Your task to perform on an android device: Go to Reddit.com Image 0: 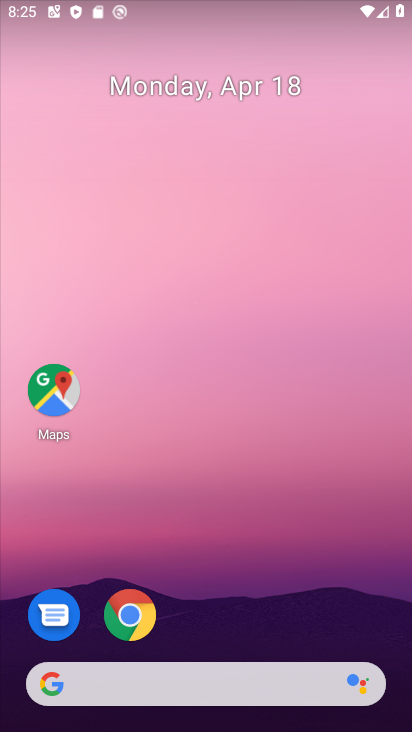
Step 0: click (140, 611)
Your task to perform on an android device: Go to Reddit.com Image 1: 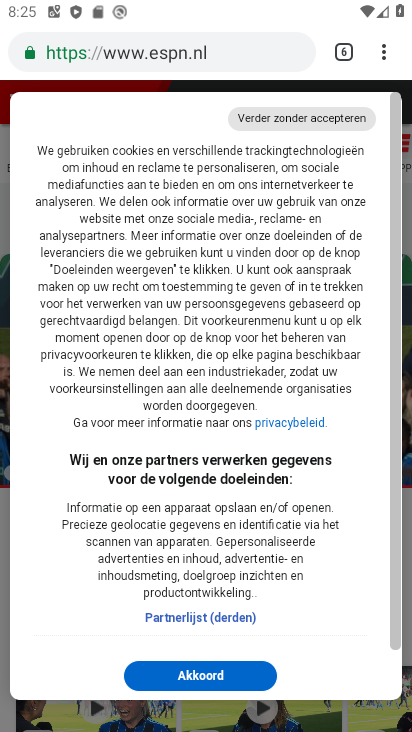
Step 1: click (381, 45)
Your task to perform on an android device: Go to Reddit.com Image 2: 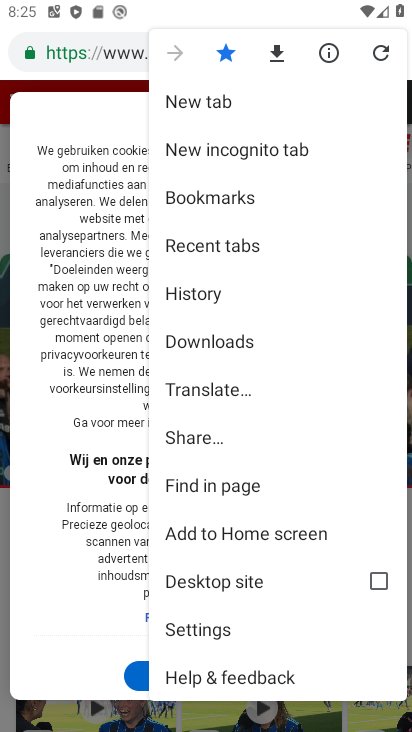
Step 2: click (307, 99)
Your task to perform on an android device: Go to Reddit.com Image 3: 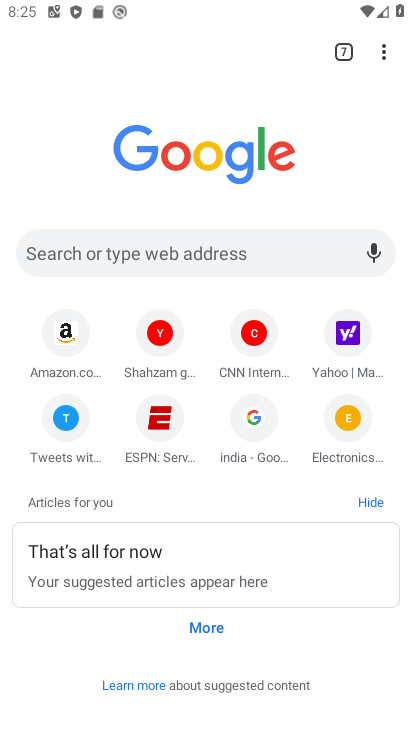
Step 3: click (259, 247)
Your task to perform on an android device: Go to Reddit.com Image 4: 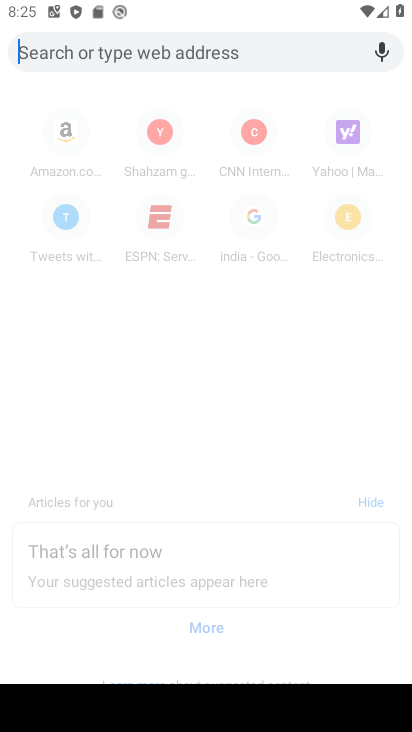
Step 4: type "Reddit.com"
Your task to perform on an android device: Go to Reddit.com Image 5: 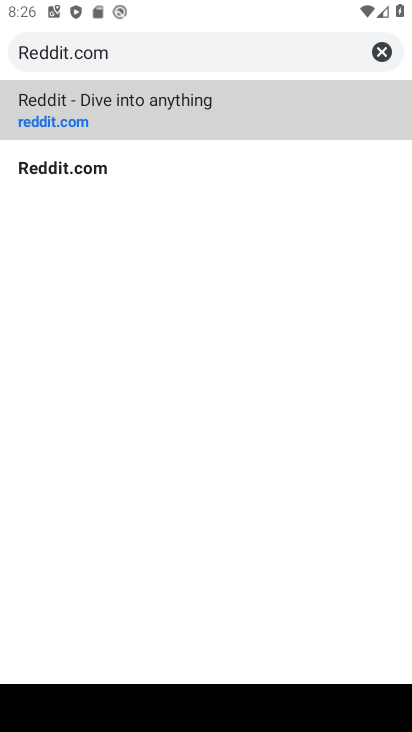
Step 5: click (88, 166)
Your task to perform on an android device: Go to Reddit.com Image 6: 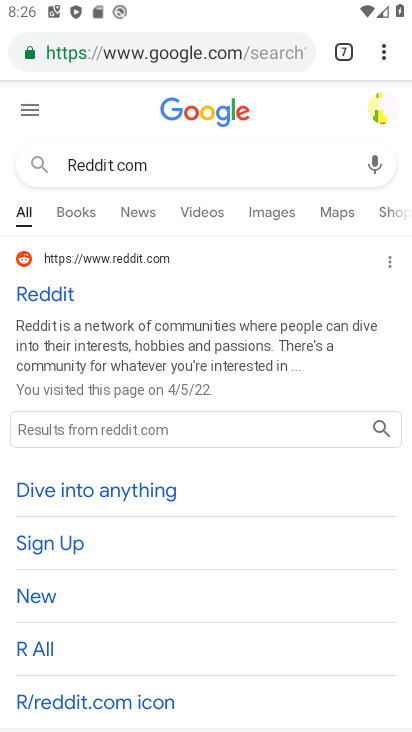
Step 6: click (58, 290)
Your task to perform on an android device: Go to Reddit.com Image 7: 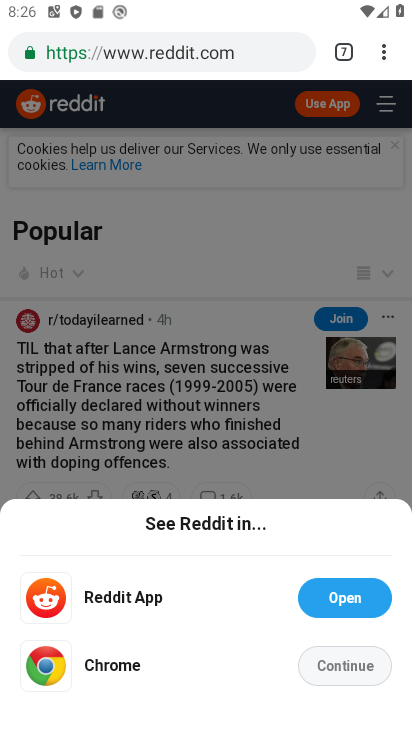
Step 7: task complete